Your task to perform on an android device: check battery use Image 0: 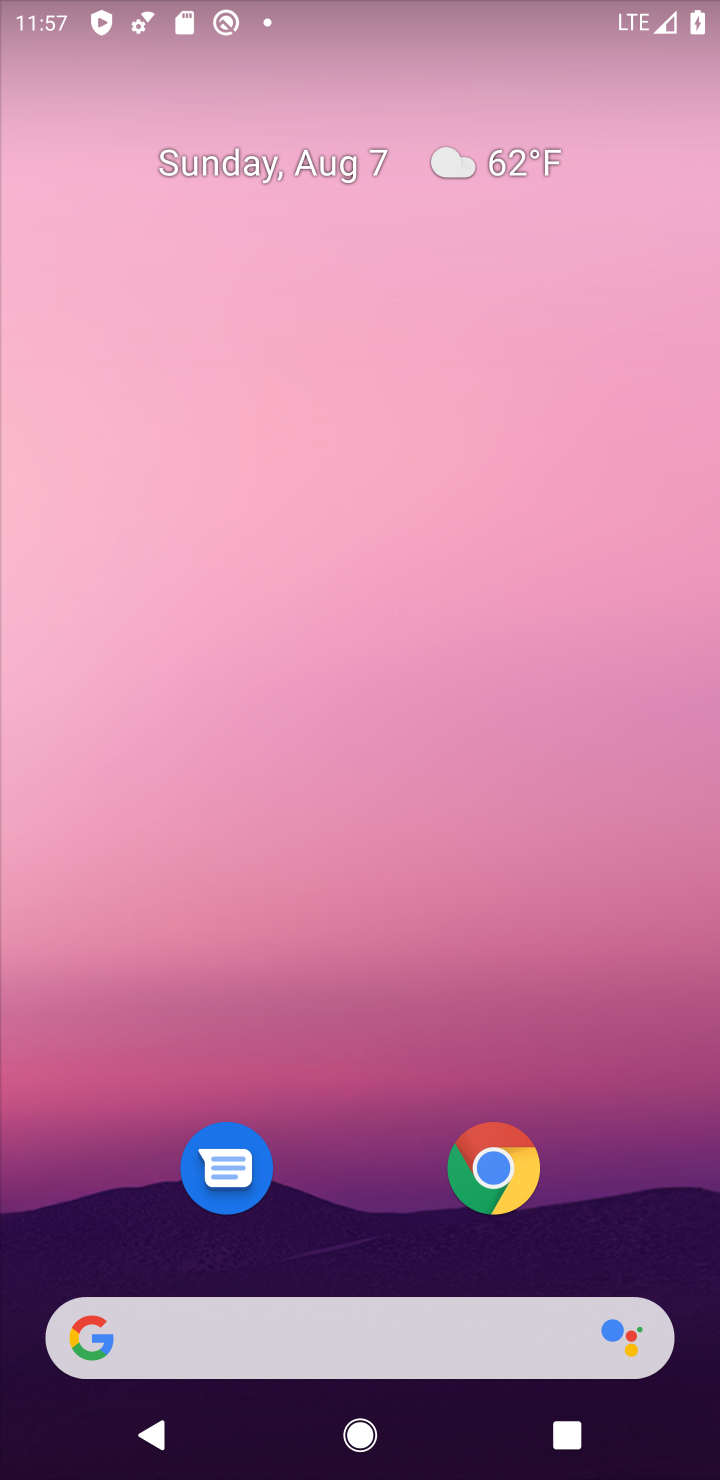
Step 0: press home button
Your task to perform on an android device: check battery use Image 1: 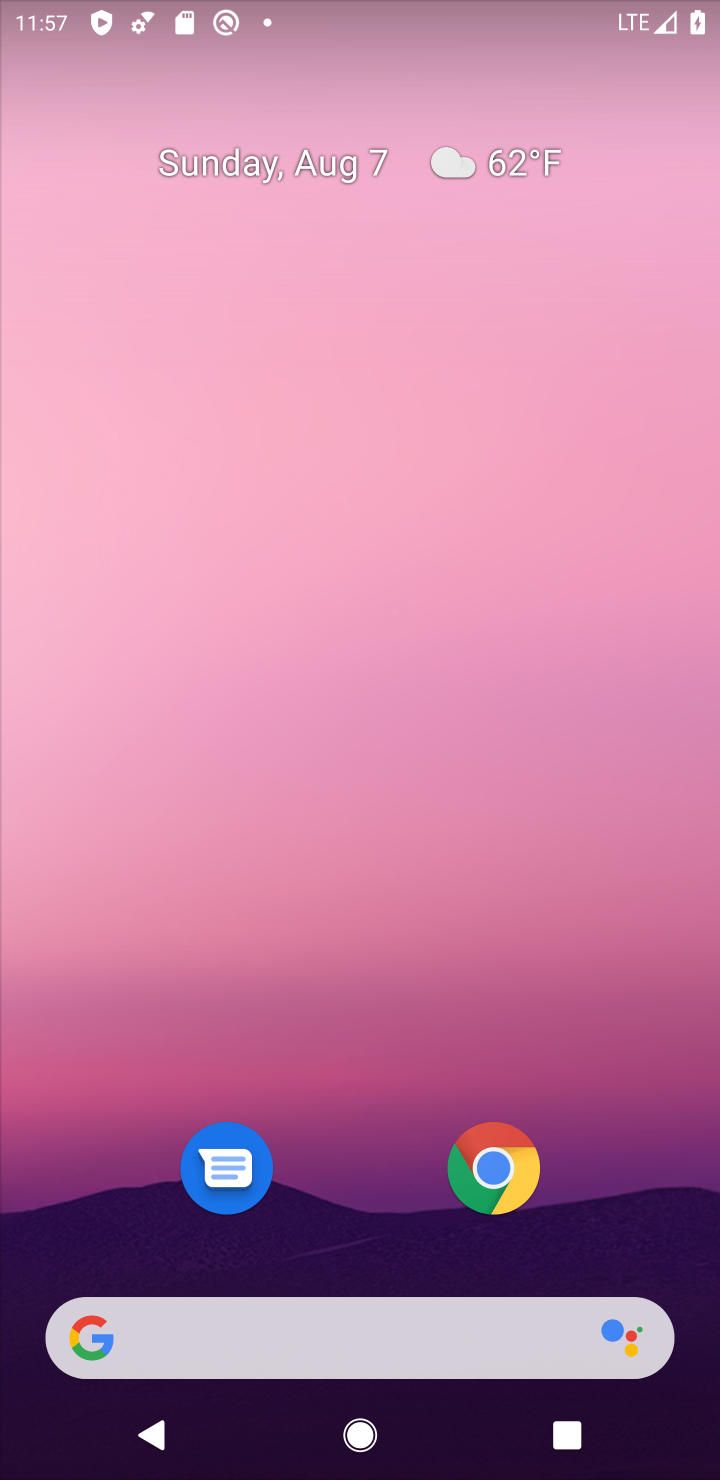
Step 1: drag from (420, 1204) to (417, 87)
Your task to perform on an android device: check battery use Image 2: 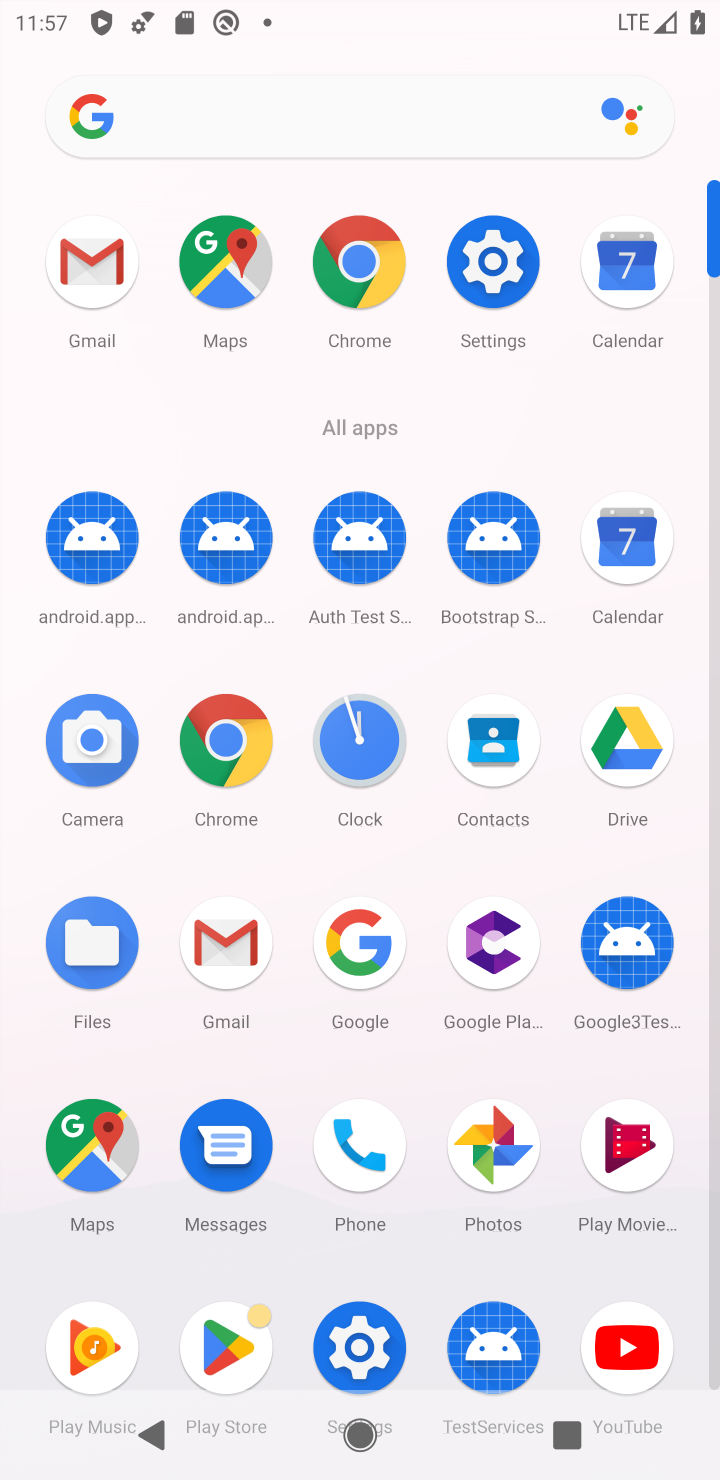
Step 2: click (506, 292)
Your task to perform on an android device: check battery use Image 3: 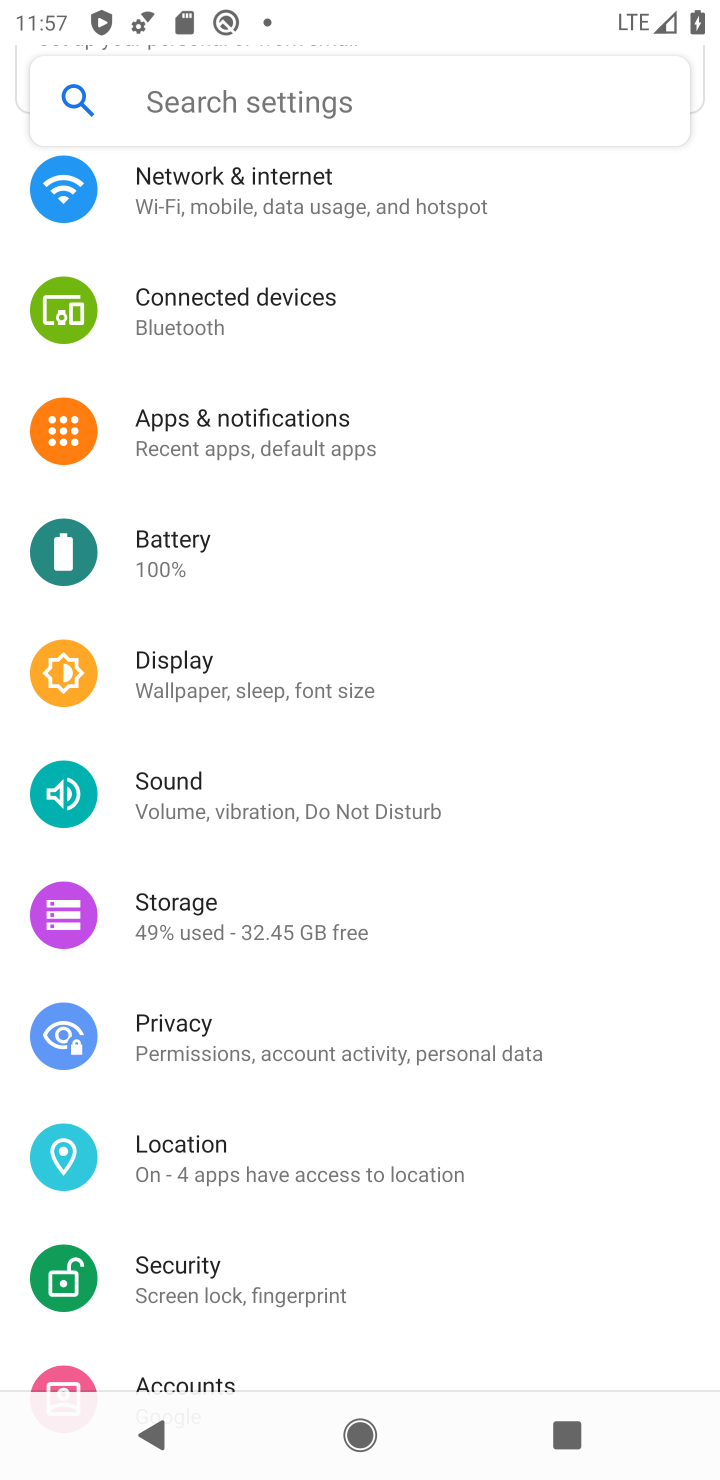
Step 3: click (153, 555)
Your task to perform on an android device: check battery use Image 4: 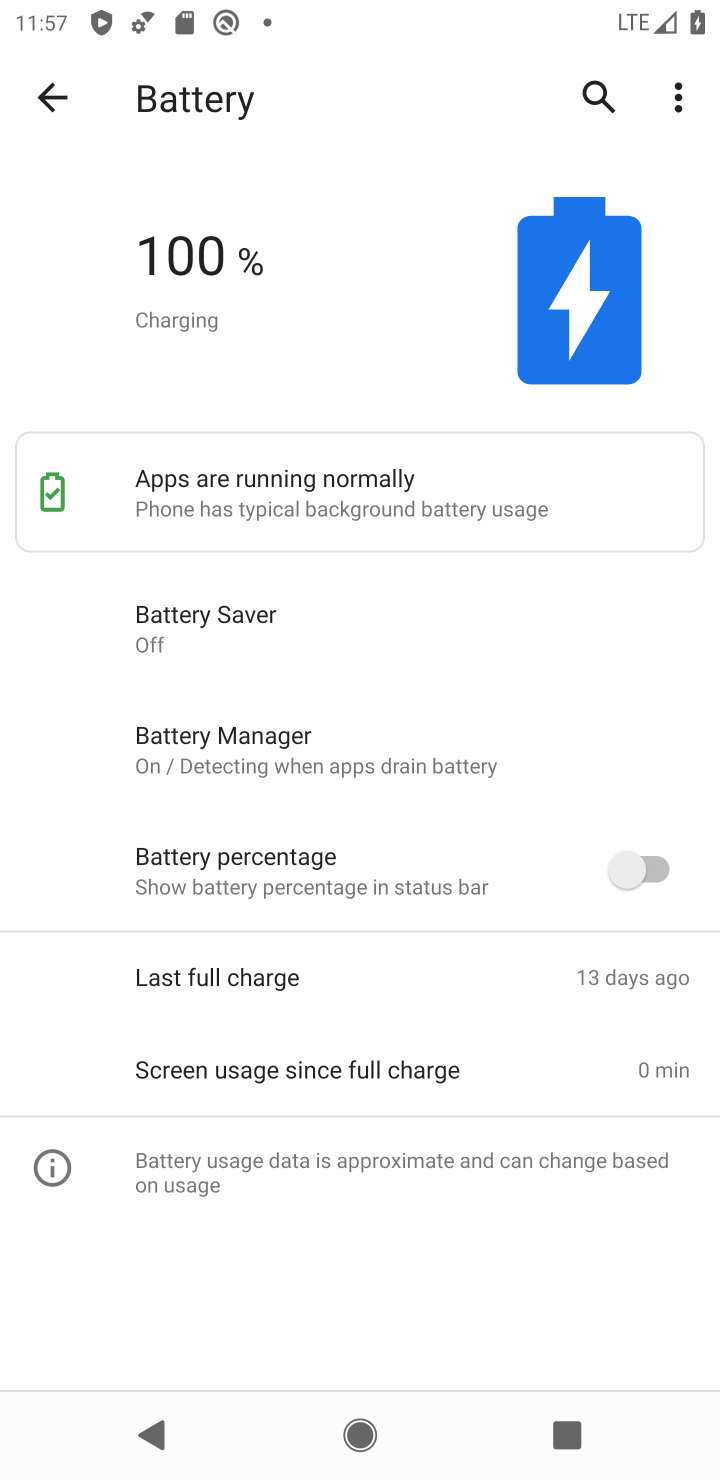
Step 4: click (672, 84)
Your task to perform on an android device: check battery use Image 5: 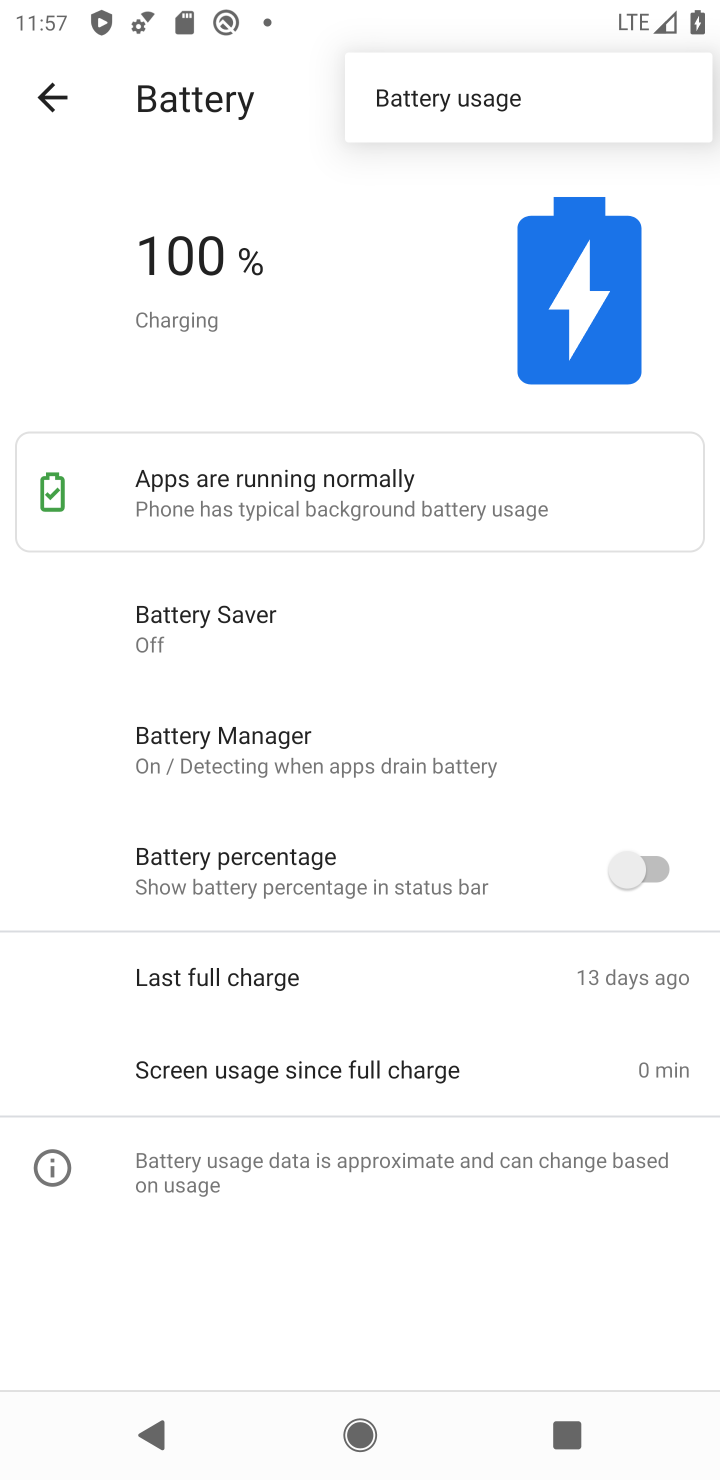
Step 5: click (447, 98)
Your task to perform on an android device: check battery use Image 6: 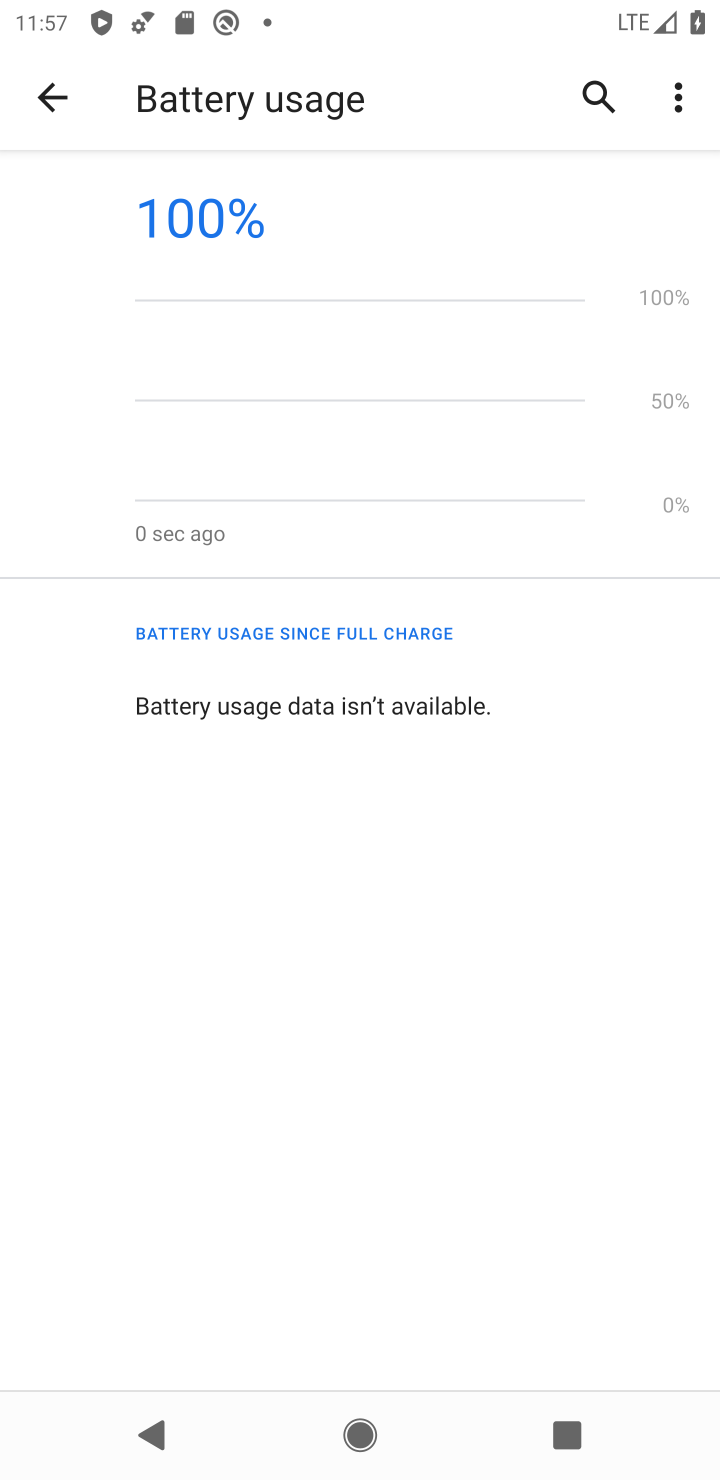
Step 6: task complete